Your task to perform on an android device: Turn off the flashlight Image 0: 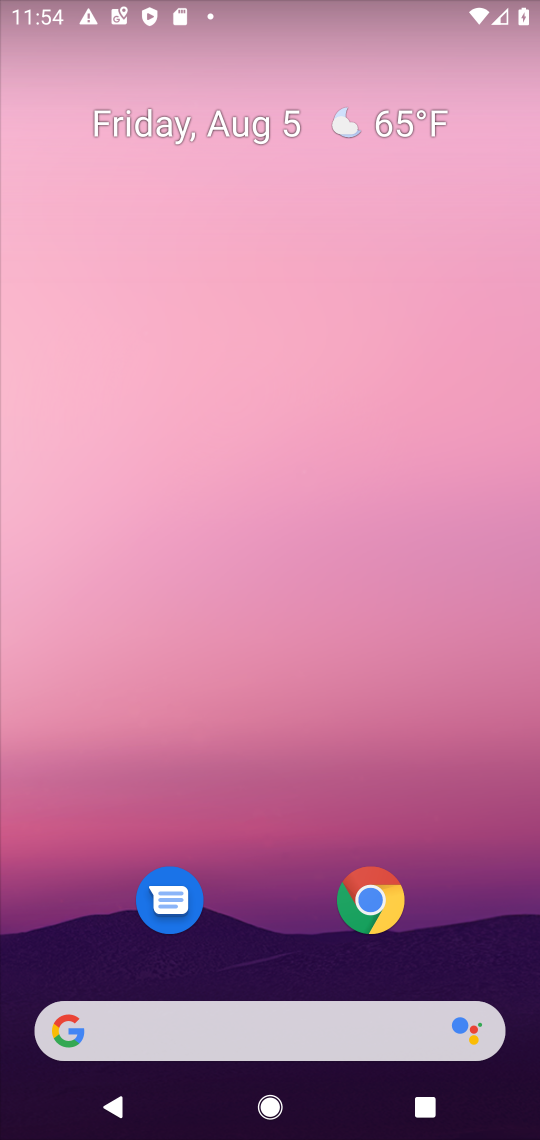
Step 0: drag from (276, 991) to (327, 167)
Your task to perform on an android device: Turn off the flashlight Image 1: 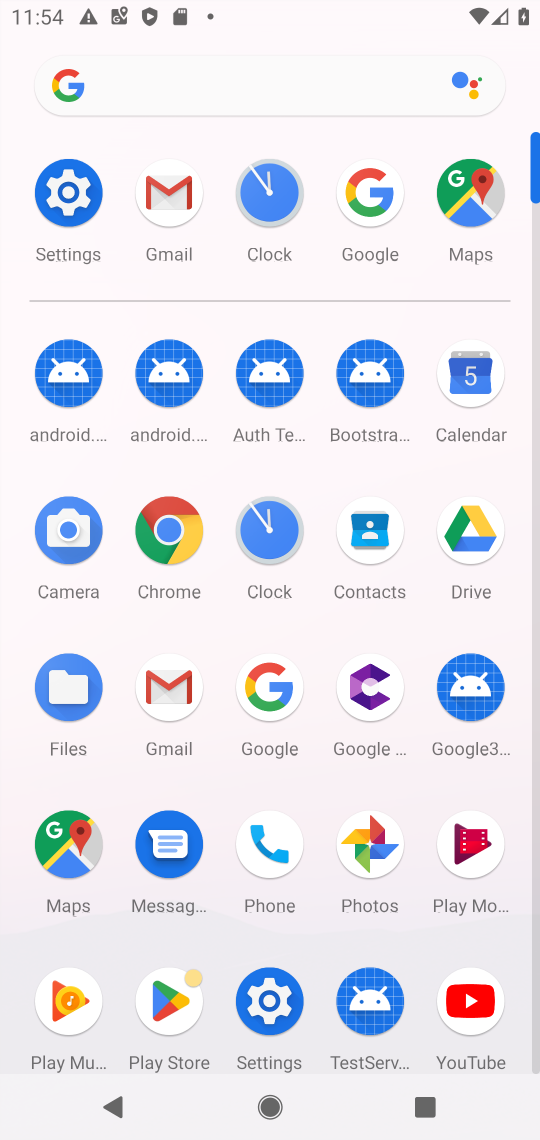
Step 1: click (70, 182)
Your task to perform on an android device: Turn off the flashlight Image 2: 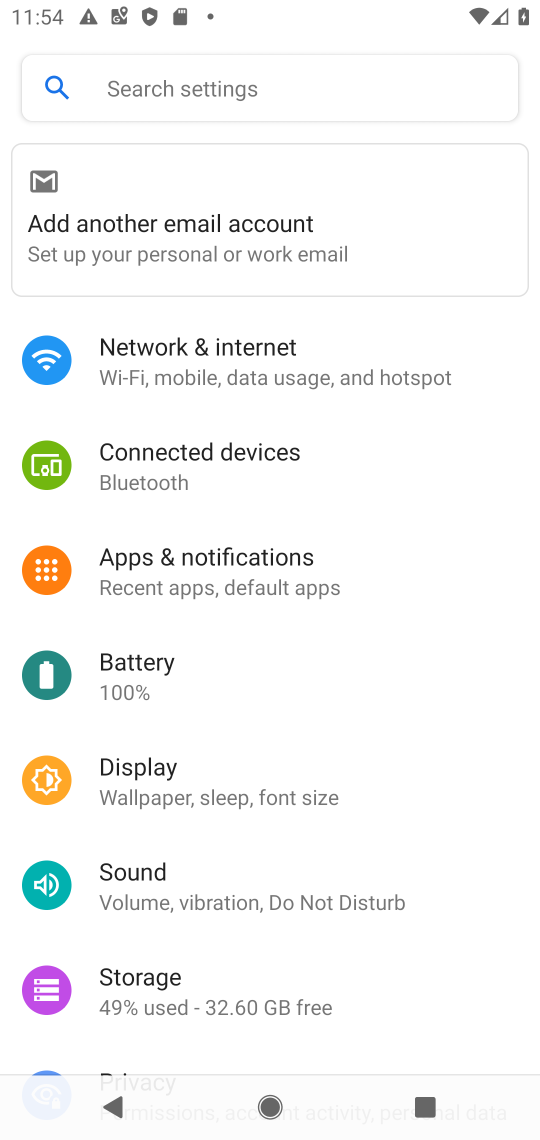
Step 2: task complete